Your task to perform on an android device: toggle location history Image 0: 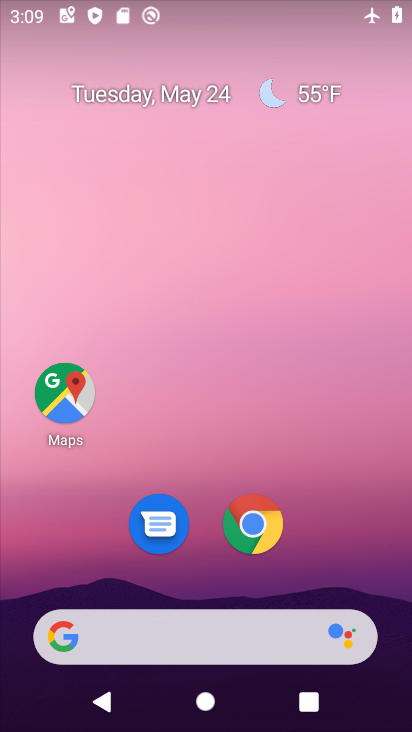
Step 0: drag from (271, 459) to (326, 2)
Your task to perform on an android device: toggle location history Image 1: 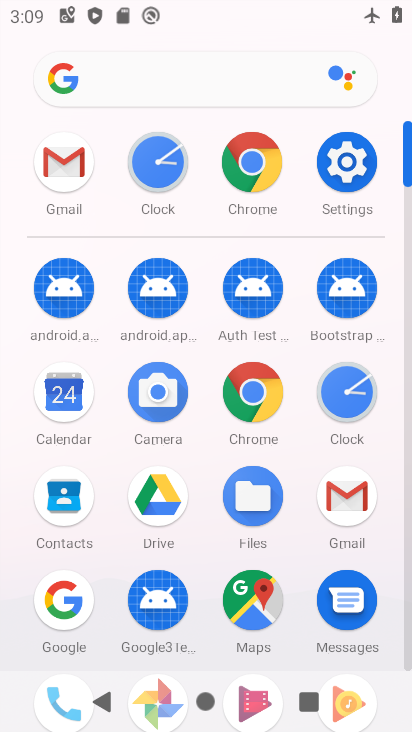
Step 1: click (343, 156)
Your task to perform on an android device: toggle location history Image 2: 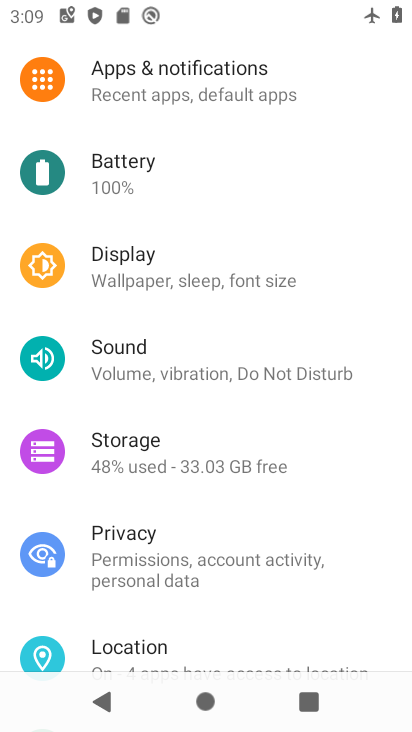
Step 2: drag from (206, 637) to (223, 339)
Your task to perform on an android device: toggle location history Image 3: 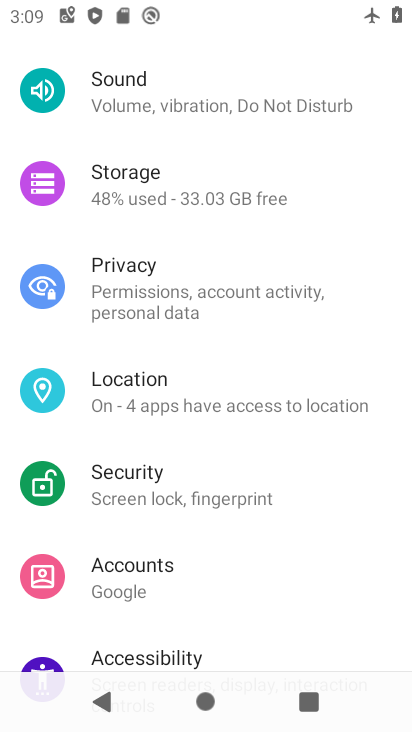
Step 3: click (199, 394)
Your task to perform on an android device: toggle location history Image 4: 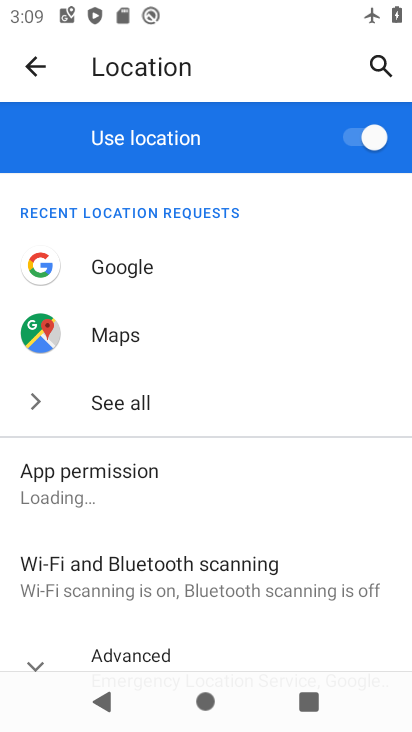
Step 4: drag from (212, 519) to (239, 134)
Your task to perform on an android device: toggle location history Image 5: 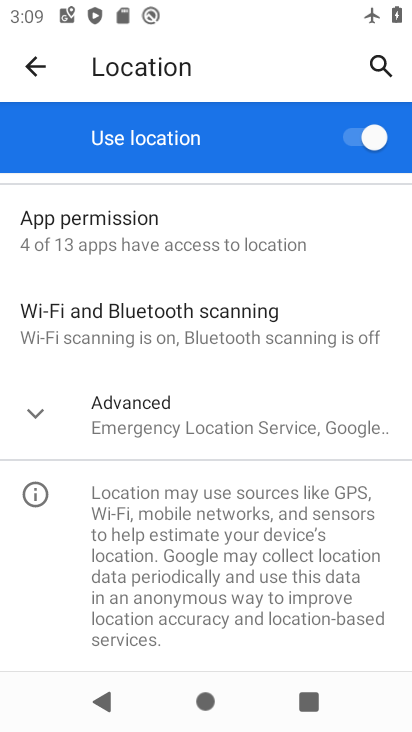
Step 5: click (30, 403)
Your task to perform on an android device: toggle location history Image 6: 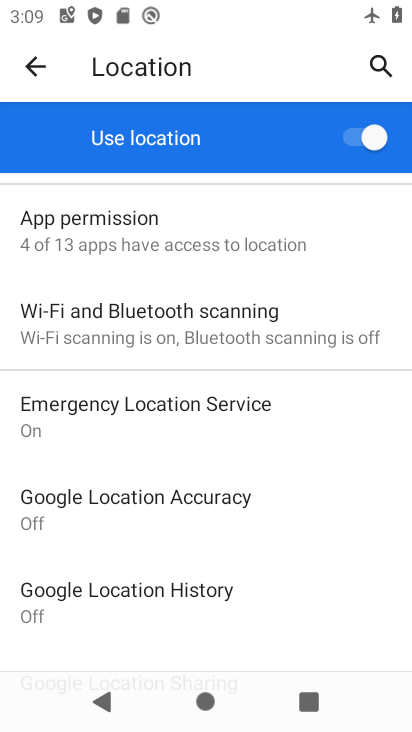
Step 6: click (159, 605)
Your task to perform on an android device: toggle location history Image 7: 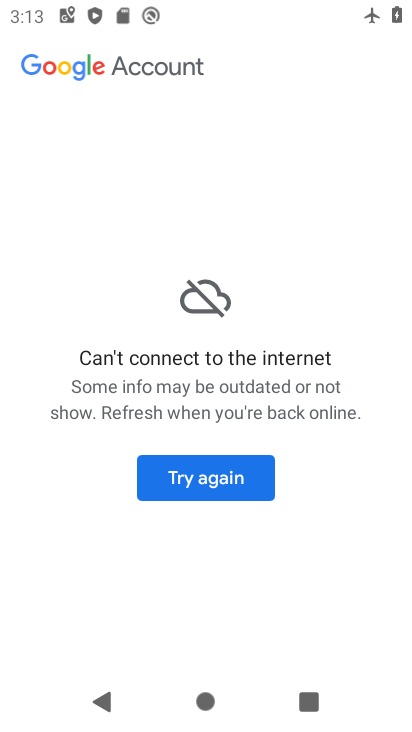
Step 7: task complete